Your task to perform on an android device: change alarm snooze length Image 0: 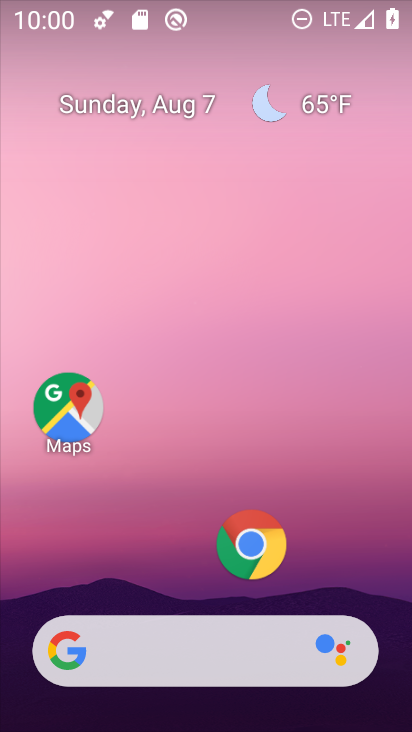
Step 0: drag from (201, 595) to (184, 58)
Your task to perform on an android device: change alarm snooze length Image 1: 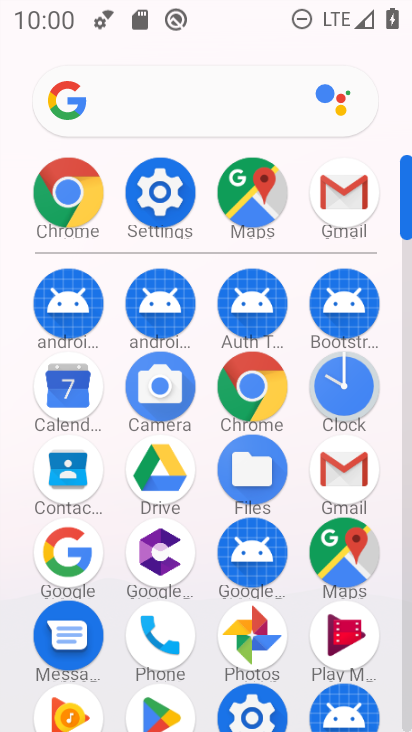
Step 1: click (349, 378)
Your task to perform on an android device: change alarm snooze length Image 2: 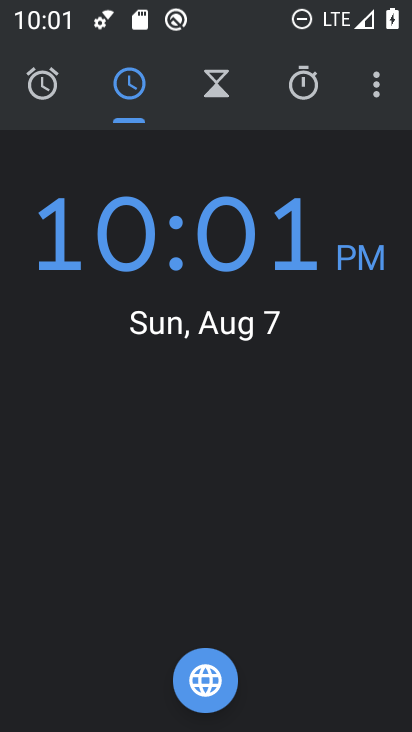
Step 2: click (377, 90)
Your task to perform on an android device: change alarm snooze length Image 3: 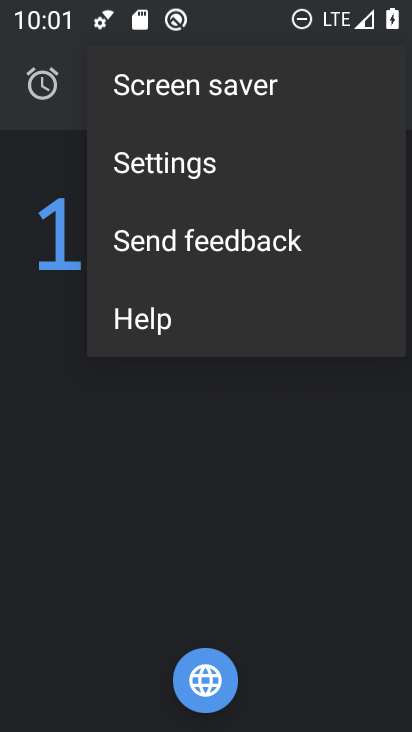
Step 3: click (204, 174)
Your task to perform on an android device: change alarm snooze length Image 4: 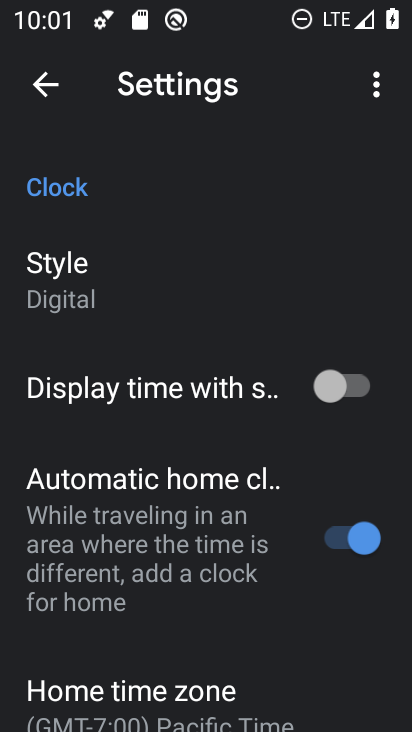
Step 4: drag from (184, 519) to (206, 136)
Your task to perform on an android device: change alarm snooze length Image 5: 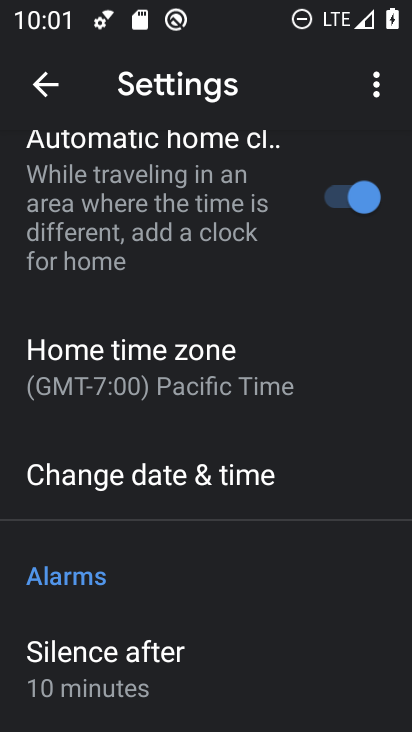
Step 5: drag from (182, 594) to (194, 264)
Your task to perform on an android device: change alarm snooze length Image 6: 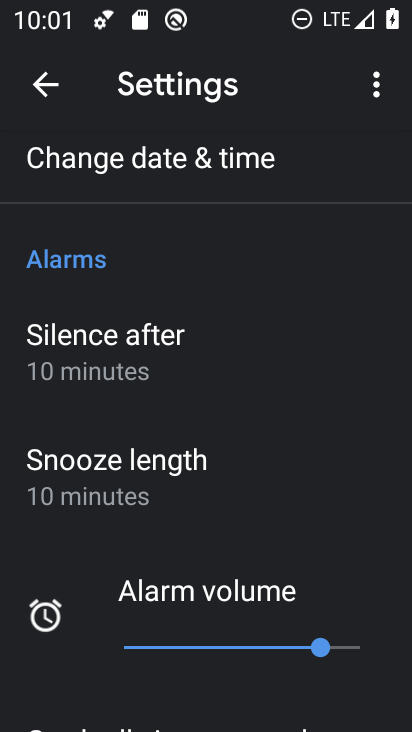
Step 6: click (231, 502)
Your task to perform on an android device: change alarm snooze length Image 7: 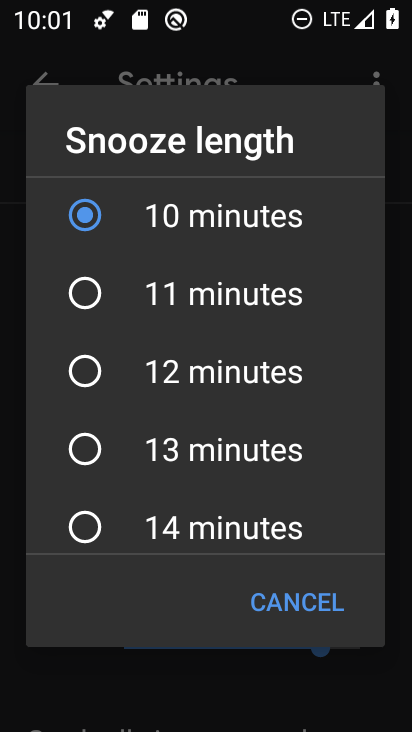
Step 7: click (126, 288)
Your task to perform on an android device: change alarm snooze length Image 8: 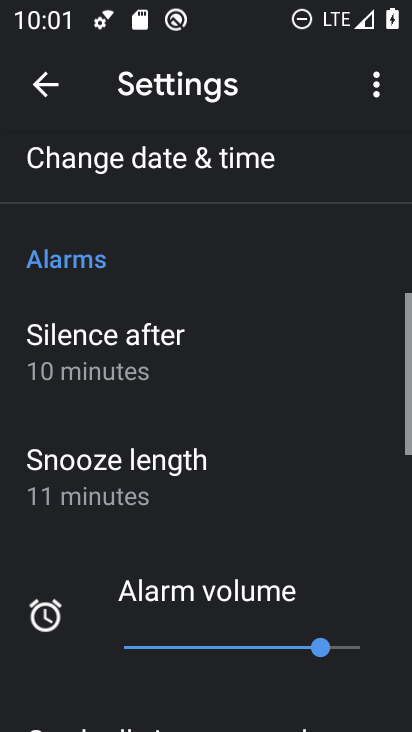
Step 8: task complete